Your task to perform on an android device: toggle wifi Image 0: 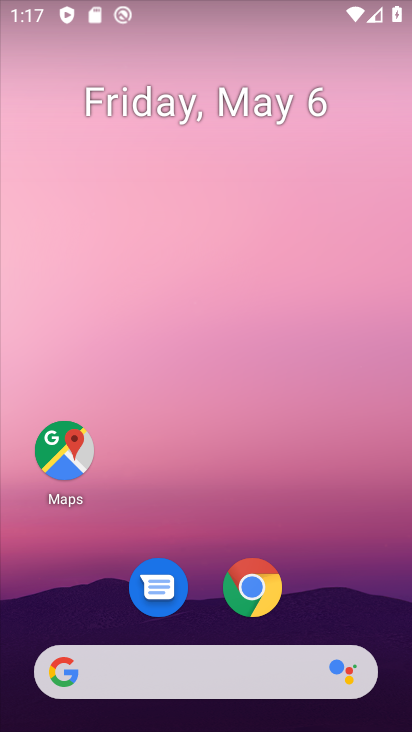
Step 0: drag from (300, 624) to (272, 86)
Your task to perform on an android device: toggle wifi Image 1: 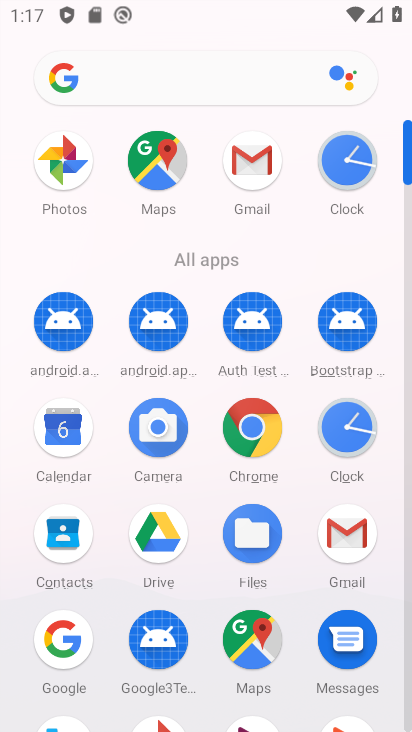
Step 1: drag from (310, 575) to (300, 229)
Your task to perform on an android device: toggle wifi Image 2: 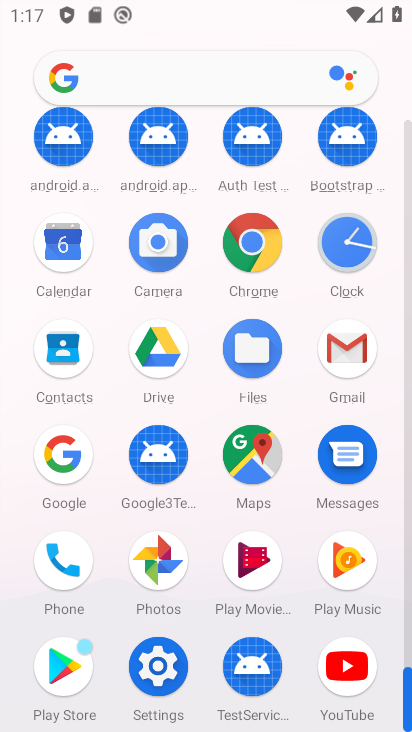
Step 2: drag from (207, 661) to (203, 307)
Your task to perform on an android device: toggle wifi Image 3: 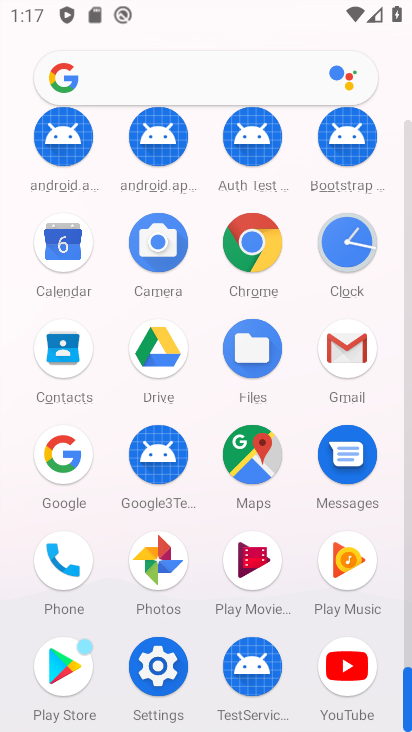
Step 3: click (161, 674)
Your task to perform on an android device: toggle wifi Image 4: 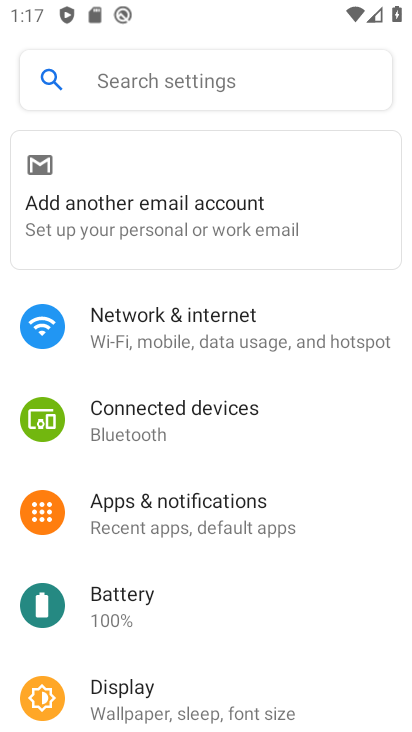
Step 4: click (153, 346)
Your task to perform on an android device: toggle wifi Image 5: 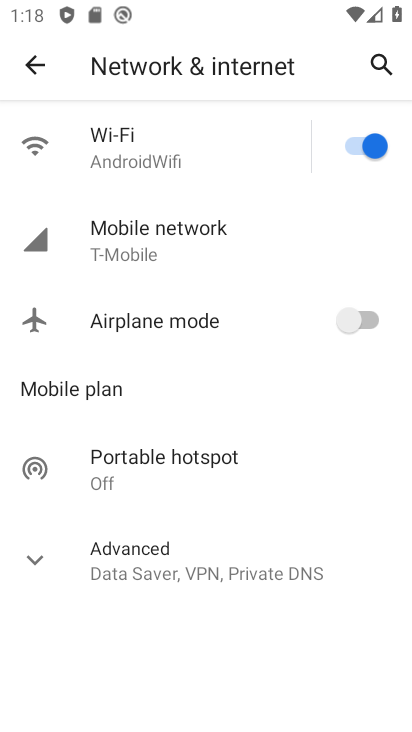
Step 5: click (375, 153)
Your task to perform on an android device: toggle wifi Image 6: 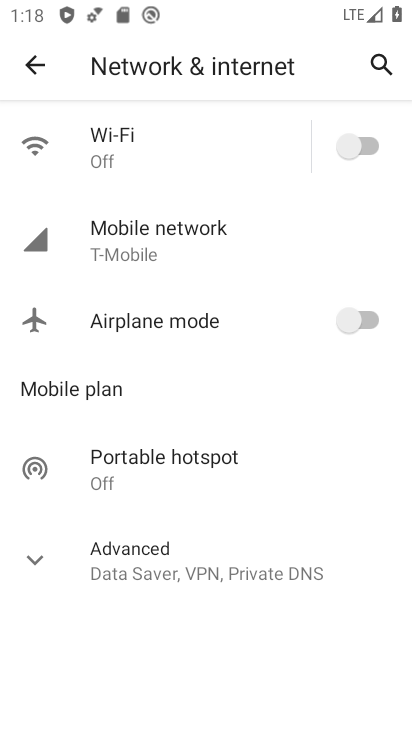
Step 6: task complete